Your task to perform on an android device: Open Google Image 0: 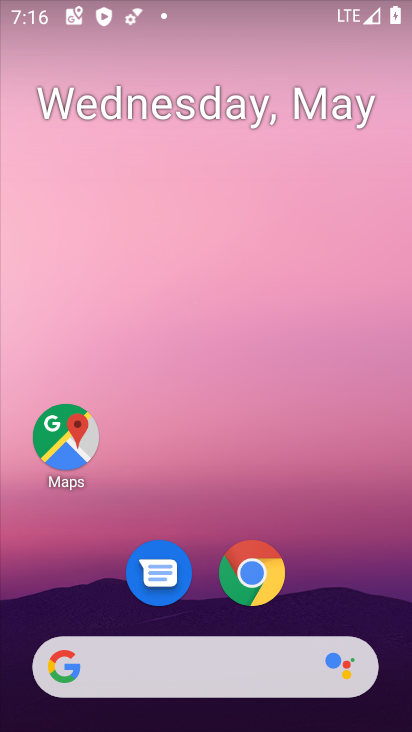
Step 0: click (166, 678)
Your task to perform on an android device: Open Google Image 1: 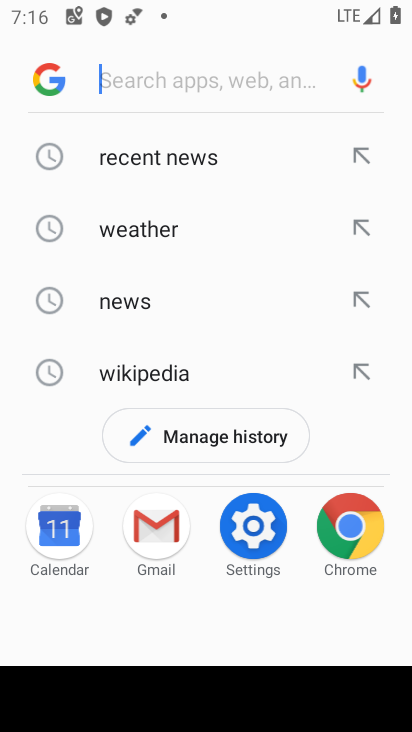
Step 1: task complete